Your task to perform on an android device: see sites visited before in the chrome app Image 0: 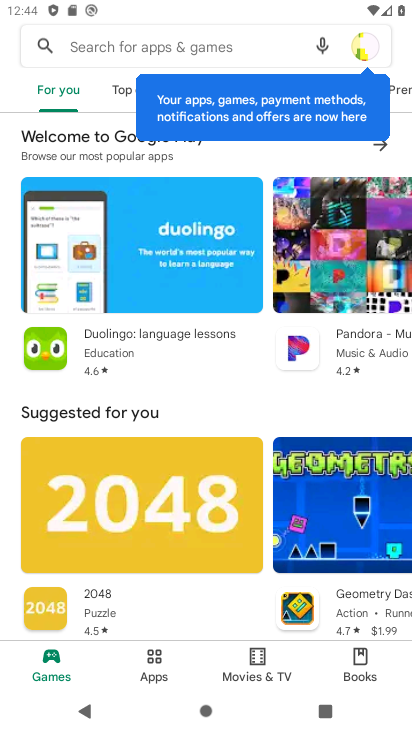
Step 0: press home button
Your task to perform on an android device: see sites visited before in the chrome app Image 1: 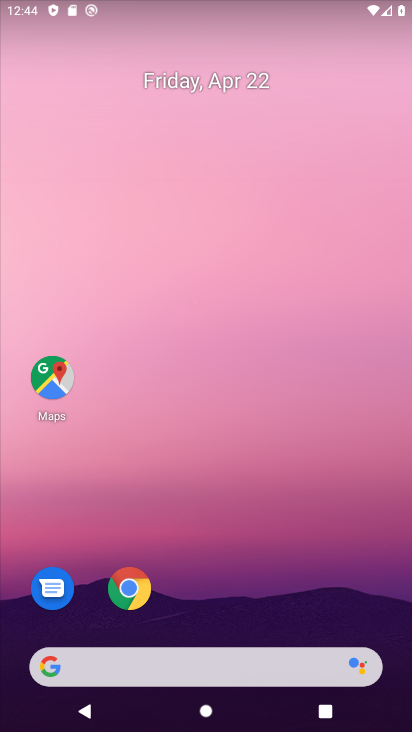
Step 1: drag from (357, 596) to (362, 161)
Your task to perform on an android device: see sites visited before in the chrome app Image 2: 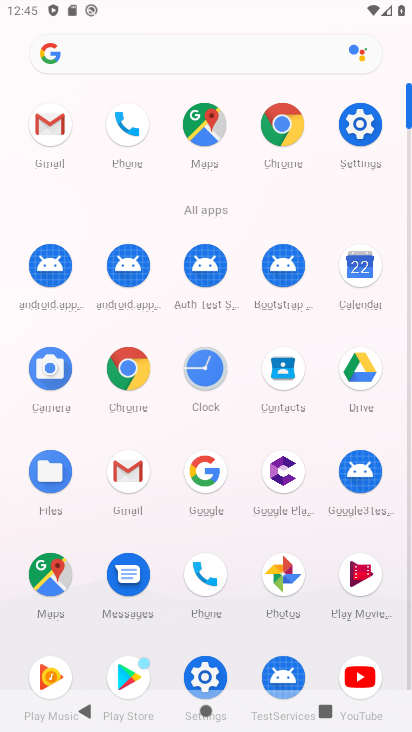
Step 2: click (142, 368)
Your task to perform on an android device: see sites visited before in the chrome app Image 3: 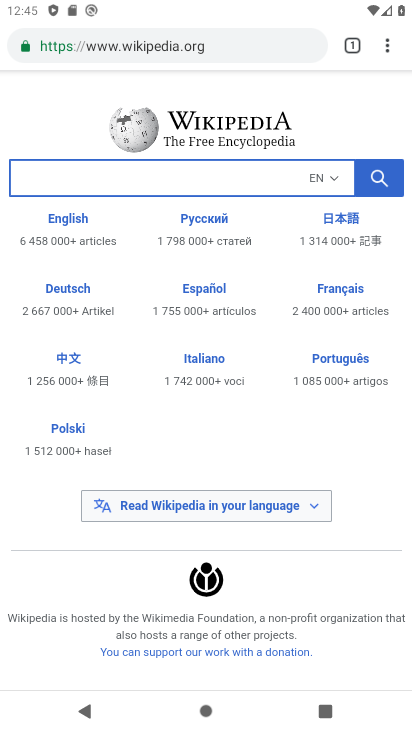
Step 3: task complete